Your task to perform on an android device: find snoozed emails in the gmail app Image 0: 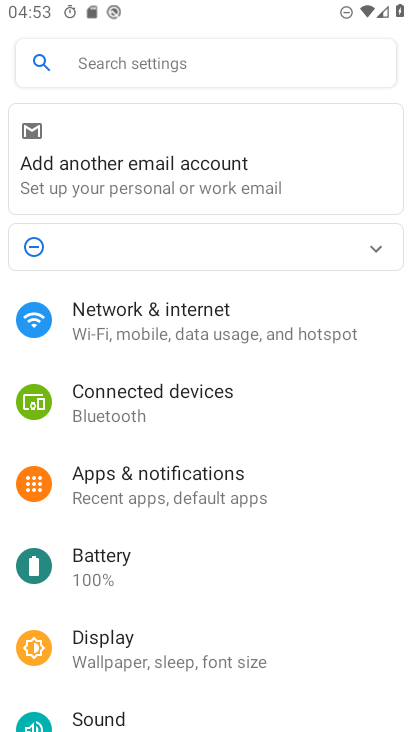
Step 0: press home button
Your task to perform on an android device: find snoozed emails in the gmail app Image 1: 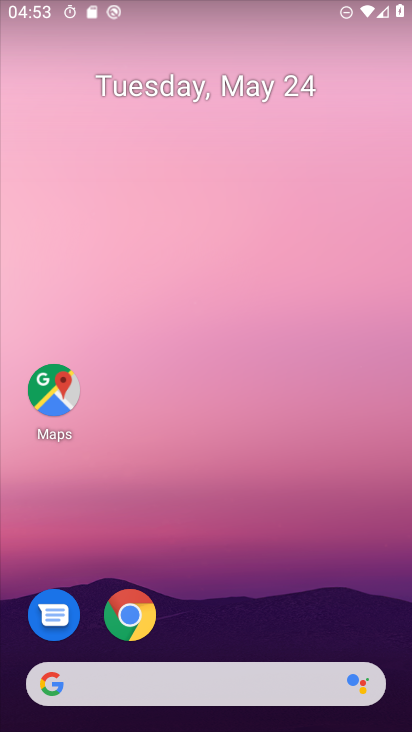
Step 1: drag from (211, 562) to (266, 121)
Your task to perform on an android device: find snoozed emails in the gmail app Image 2: 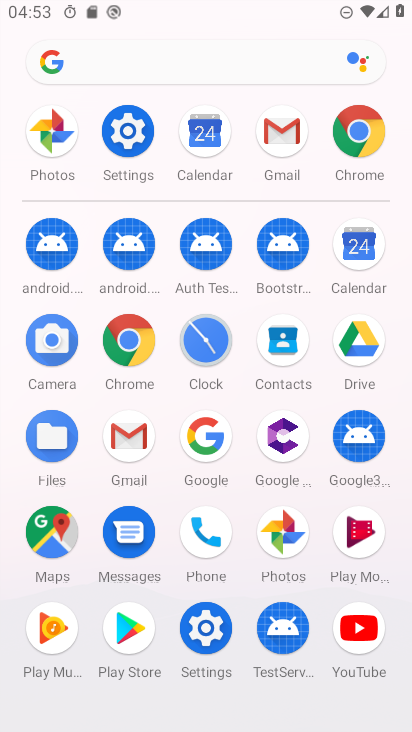
Step 2: click (275, 133)
Your task to perform on an android device: find snoozed emails in the gmail app Image 3: 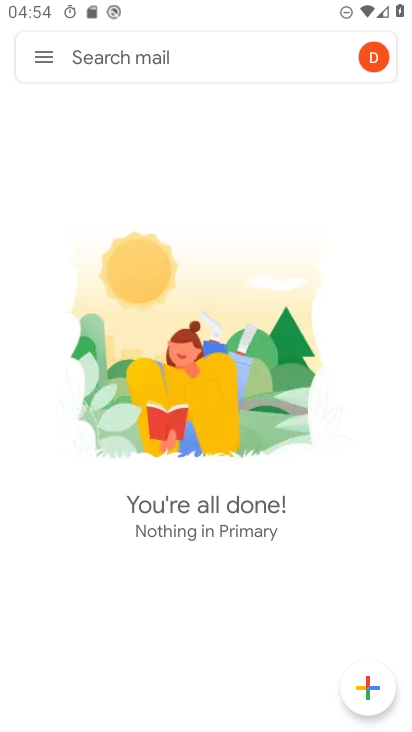
Step 3: click (44, 44)
Your task to perform on an android device: find snoozed emails in the gmail app Image 4: 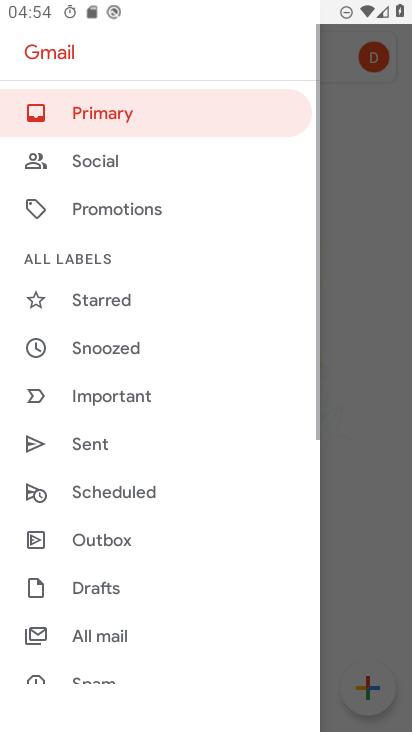
Step 4: click (84, 637)
Your task to perform on an android device: find snoozed emails in the gmail app Image 5: 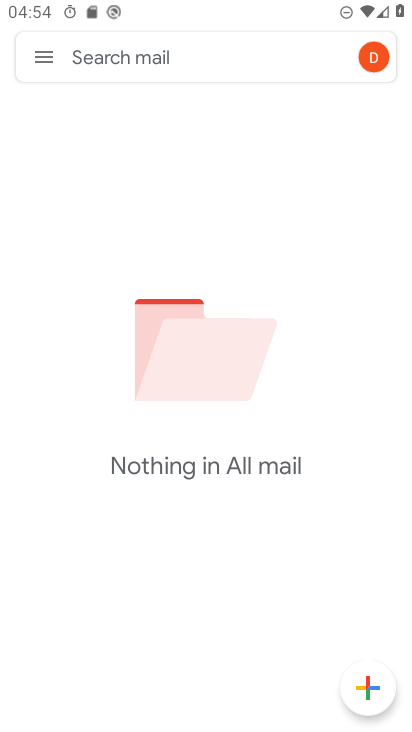
Step 5: click (37, 56)
Your task to perform on an android device: find snoozed emails in the gmail app Image 6: 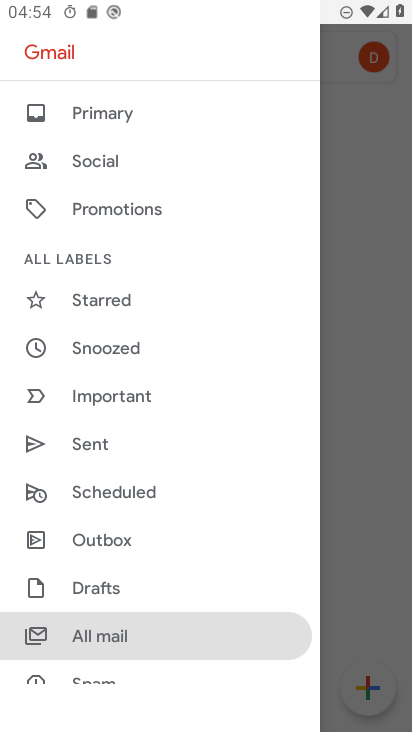
Step 6: click (110, 346)
Your task to perform on an android device: find snoozed emails in the gmail app Image 7: 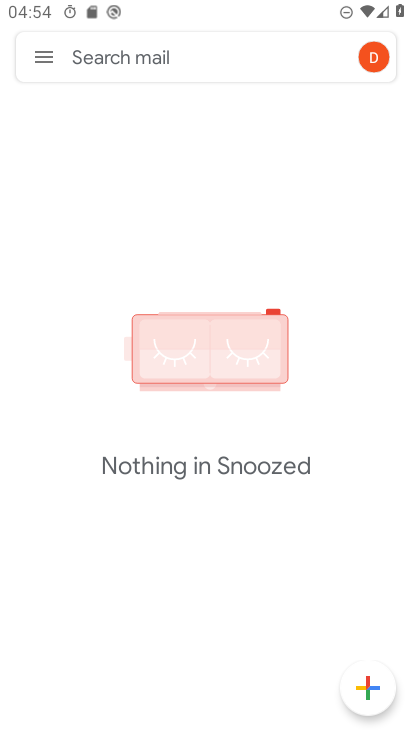
Step 7: task complete